Your task to perform on an android device: Check the weather Image 0: 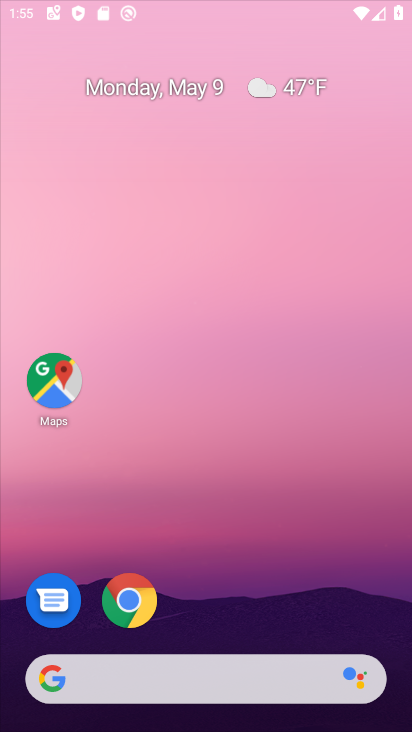
Step 0: click (137, 294)
Your task to perform on an android device: Check the weather Image 1: 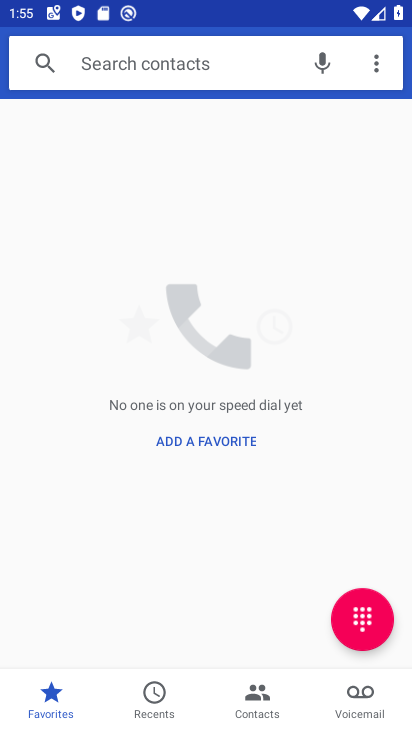
Step 1: press home button
Your task to perform on an android device: Check the weather Image 2: 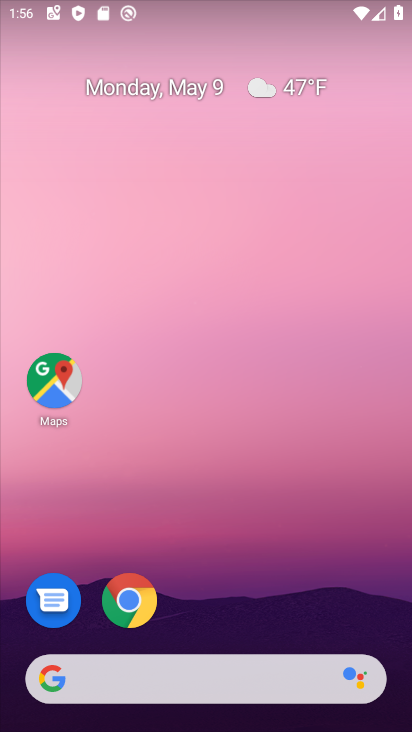
Step 2: click (296, 91)
Your task to perform on an android device: Check the weather Image 3: 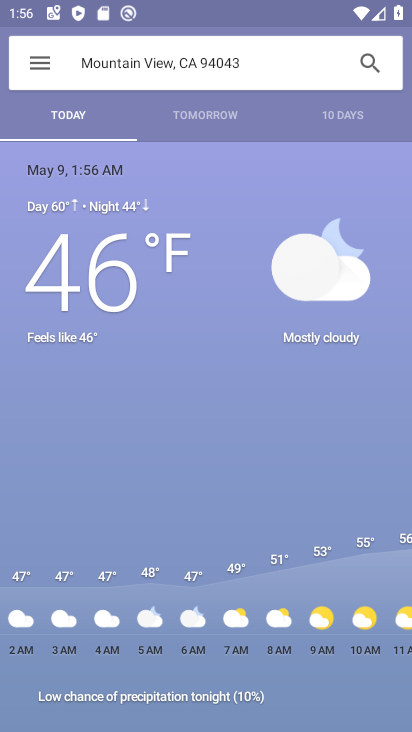
Step 3: task complete